Your task to perform on an android device: Search for vegetarian restaurants on Maps Image 0: 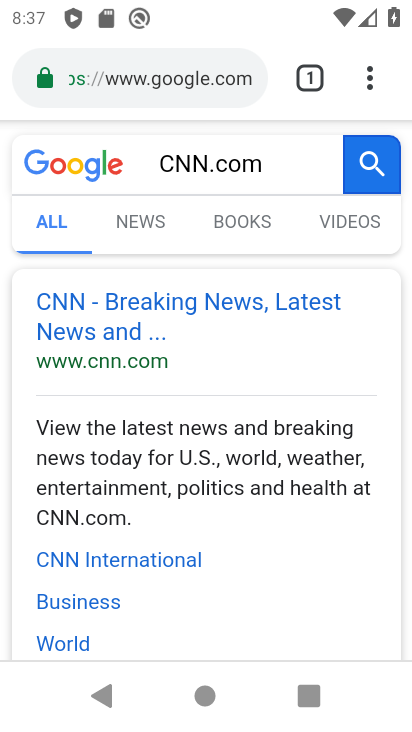
Step 0: press home button
Your task to perform on an android device: Search for vegetarian restaurants on Maps Image 1: 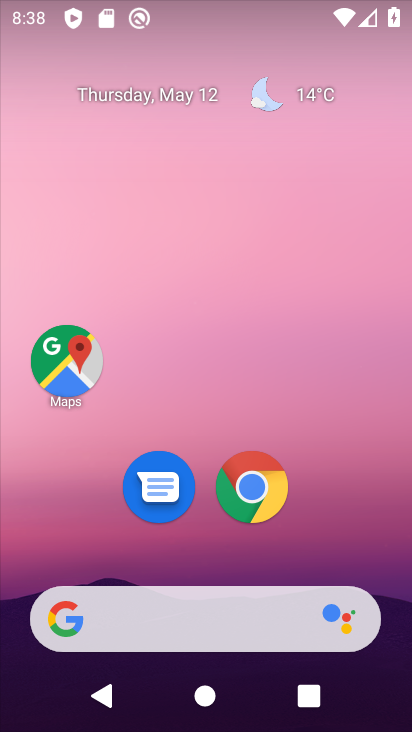
Step 1: click (67, 363)
Your task to perform on an android device: Search for vegetarian restaurants on Maps Image 2: 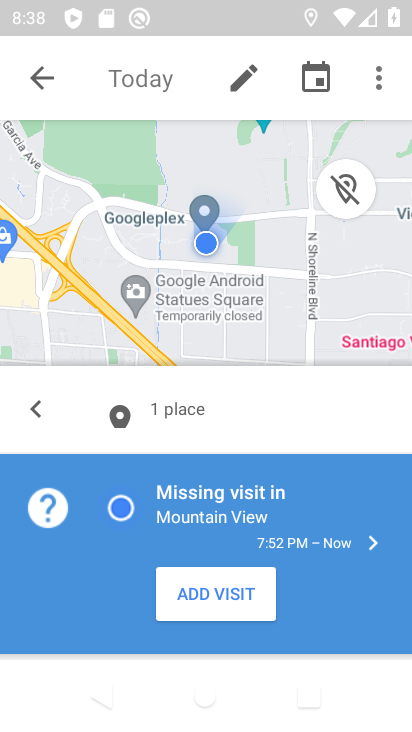
Step 2: press back button
Your task to perform on an android device: Search for vegetarian restaurants on Maps Image 3: 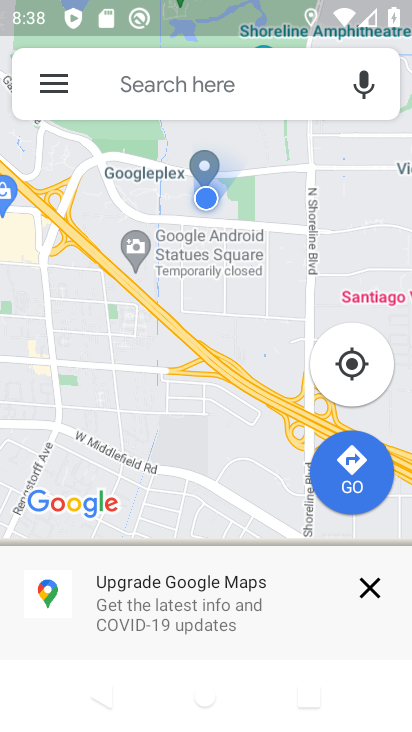
Step 3: click (234, 94)
Your task to perform on an android device: Search for vegetarian restaurants on Maps Image 4: 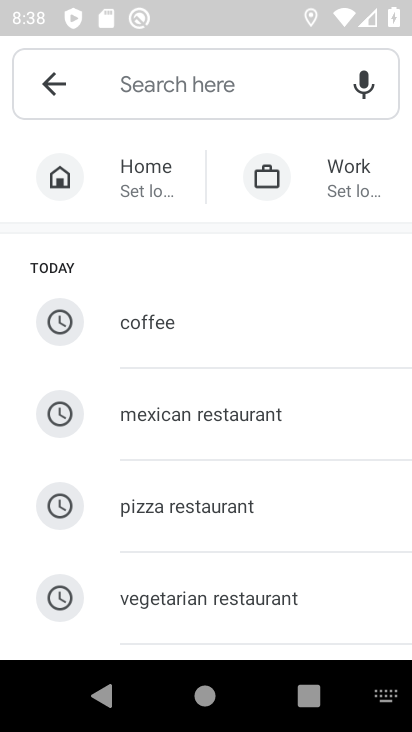
Step 4: click (149, 600)
Your task to perform on an android device: Search for vegetarian restaurants on Maps Image 5: 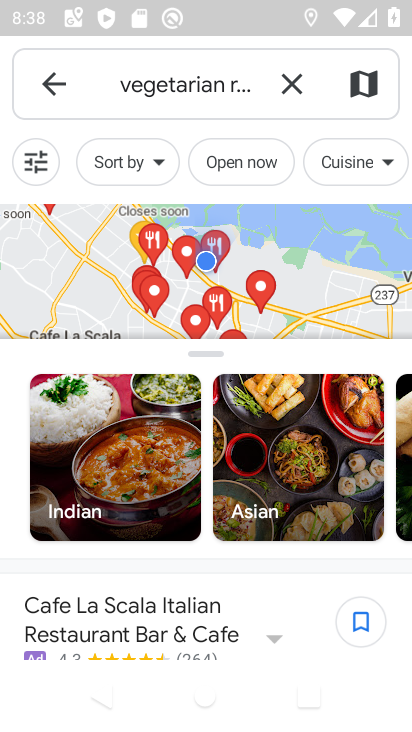
Step 5: task complete